Your task to perform on an android device: Go to wifi settings Image 0: 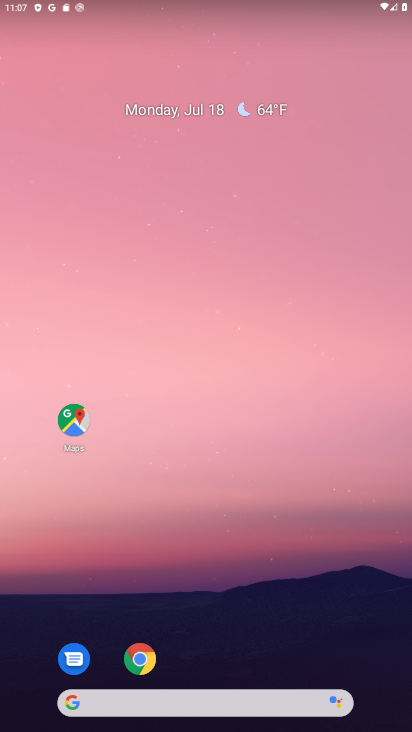
Step 0: drag from (332, 0) to (319, 476)
Your task to perform on an android device: Go to wifi settings Image 1: 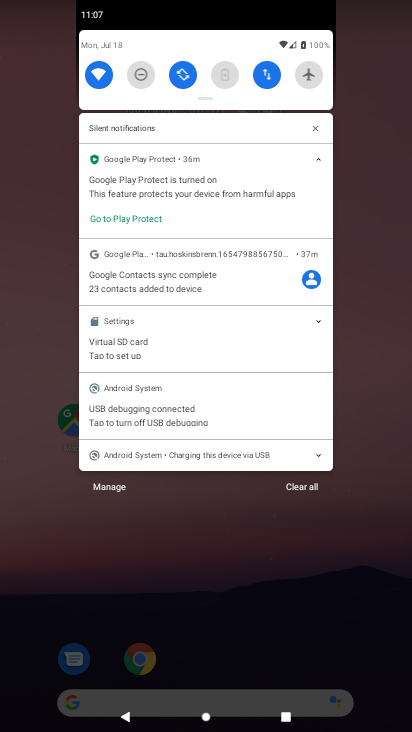
Step 1: click (99, 66)
Your task to perform on an android device: Go to wifi settings Image 2: 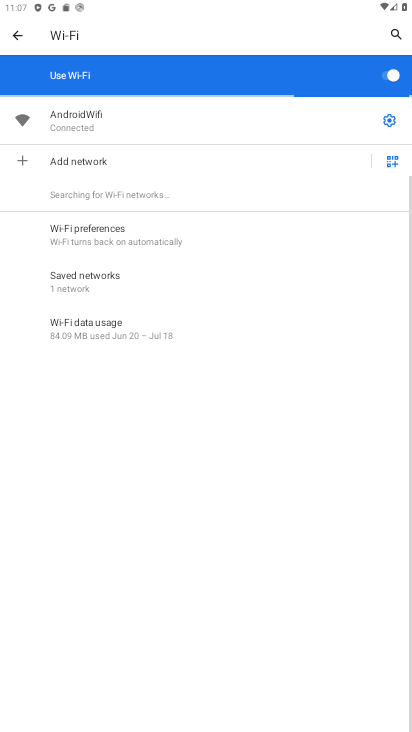
Step 2: task complete